Your task to perform on an android device: Go to Amazon Image 0: 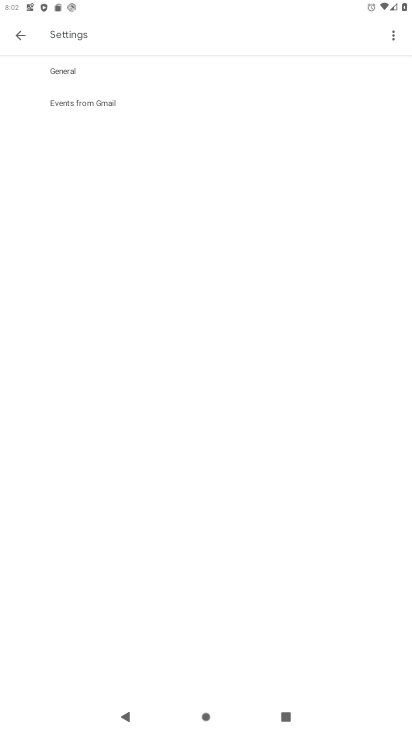
Step 0: press home button
Your task to perform on an android device: Go to Amazon Image 1: 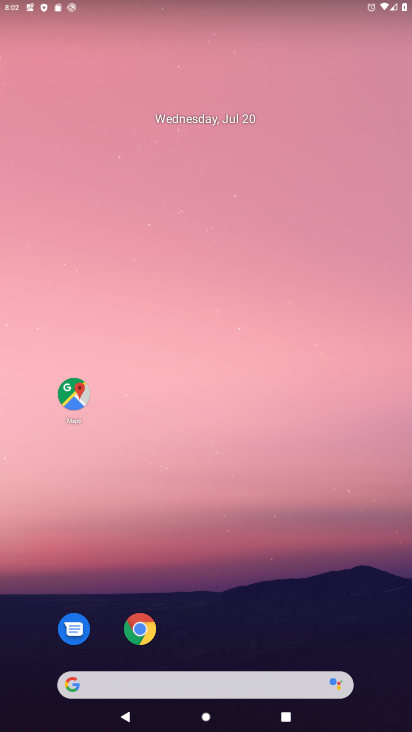
Step 1: click (143, 621)
Your task to perform on an android device: Go to Amazon Image 2: 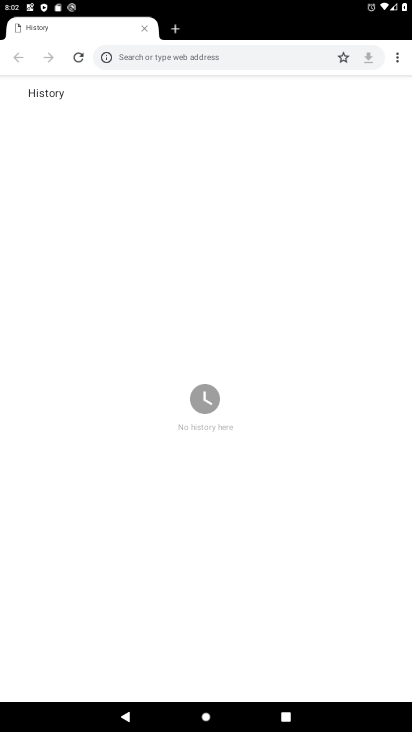
Step 2: click (198, 56)
Your task to perform on an android device: Go to Amazon Image 3: 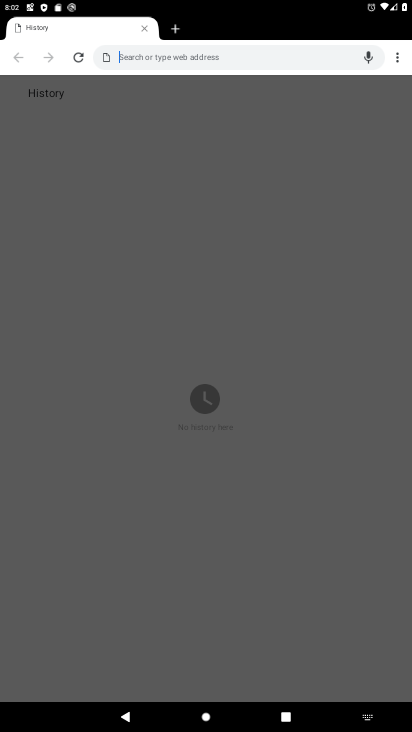
Step 3: type "www.amazon.com"
Your task to perform on an android device: Go to Amazon Image 4: 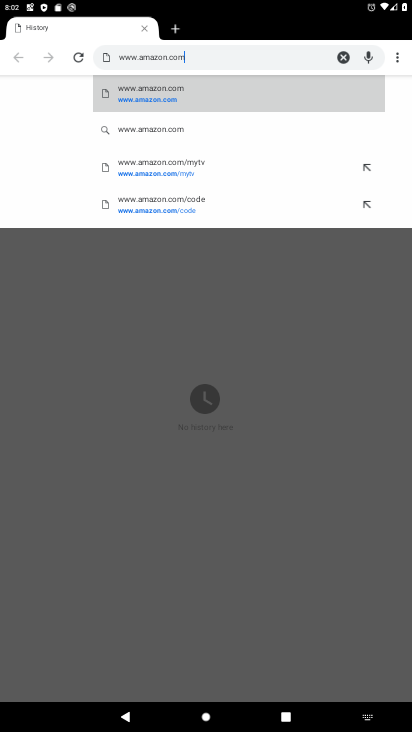
Step 4: click (148, 94)
Your task to perform on an android device: Go to Amazon Image 5: 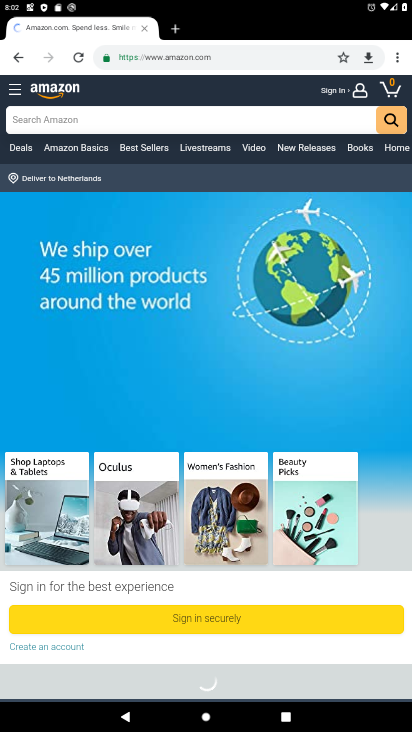
Step 5: task complete